Your task to perform on an android device: turn on javascript in the chrome app Image 0: 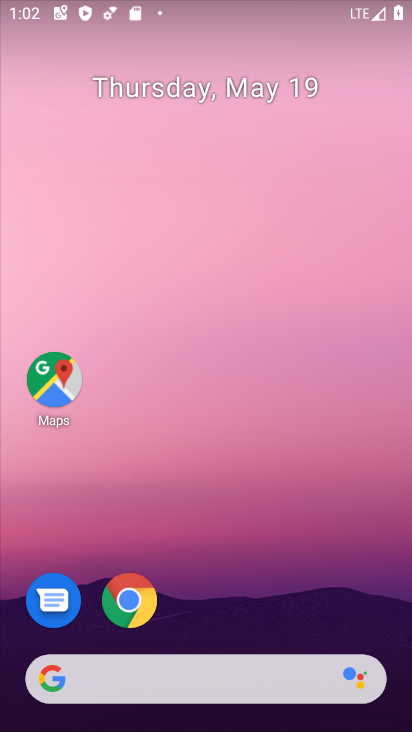
Step 0: click (121, 600)
Your task to perform on an android device: turn on javascript in the chrome app Image 1: 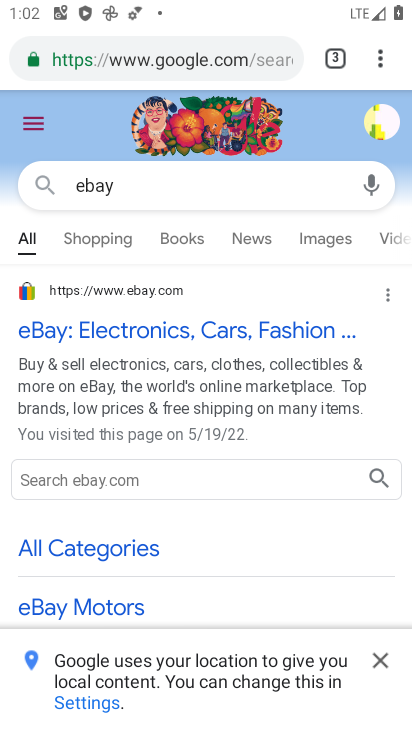
Step 1: click (378, 60)
Your task to perform on an android device: turn on javascript in the chrome app Image 2: 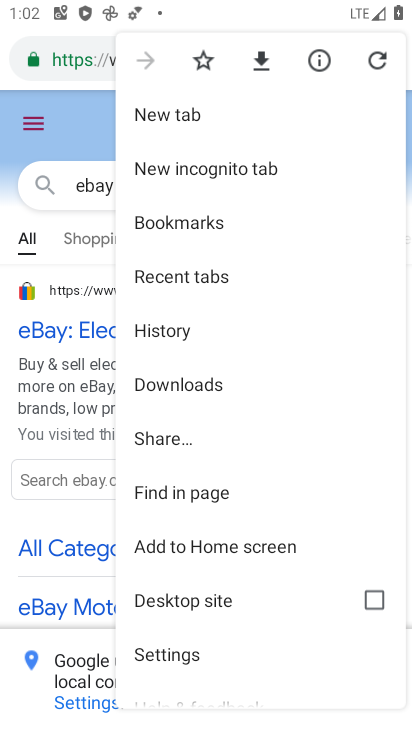
Step 2: drag from (271, 498) to (261, 163)
Your task to perform on an android device: turn on javascript in the chrome app Image 3: 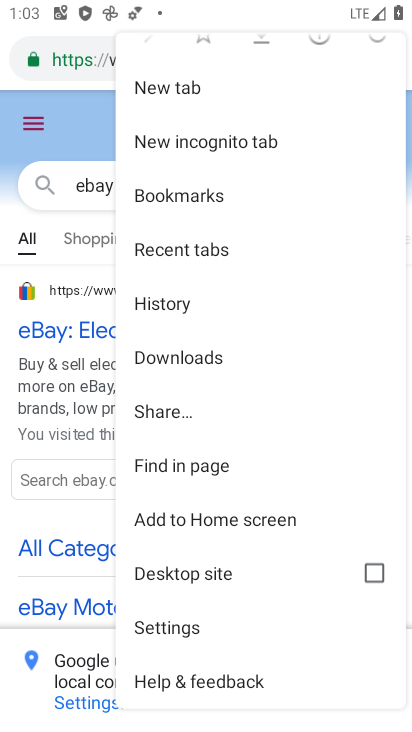
Step 3: click (168, 626)
Your task to perform on an android device: turn on javascript in the chrome app Image 4: 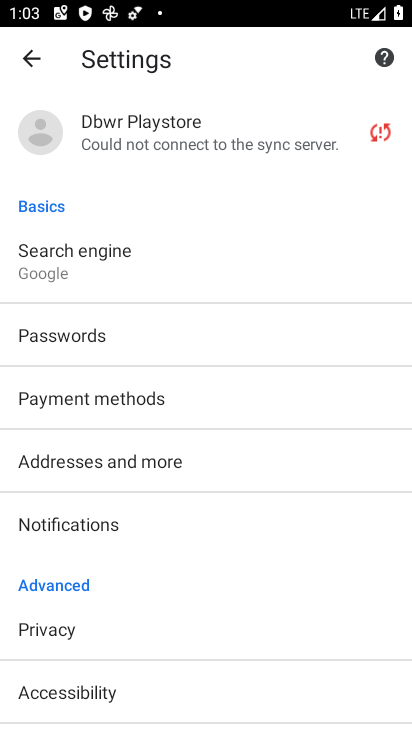
Step 4: drag from (244, 465) to (194, 36)
Your task to perform on an android device: turn on javascript in the chrome app Image 5: 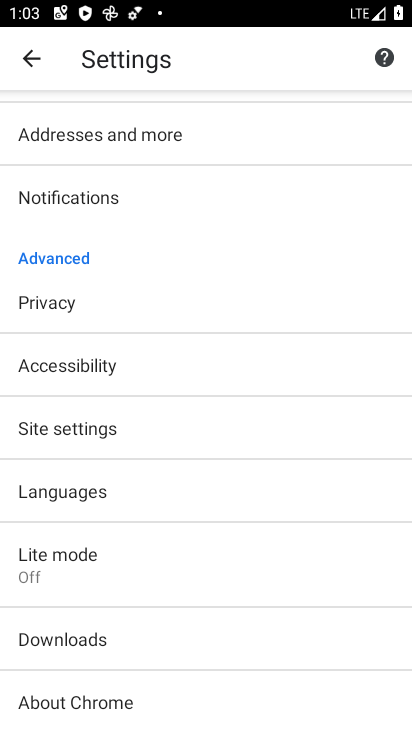
Step 5: drag from (235, 552) to (200, 199)
Your task to perform on an android device: turn on javascript in the chrome app Image 6: 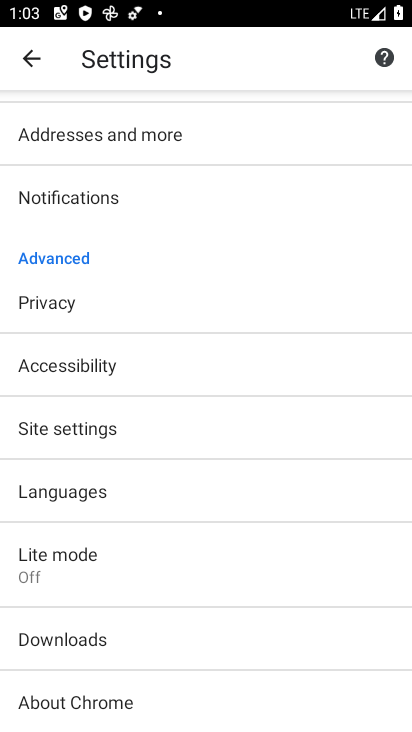
Step 6: click (79, 427)
Your task to perform on an android device: turn on javascript in the chrome app Image 7: 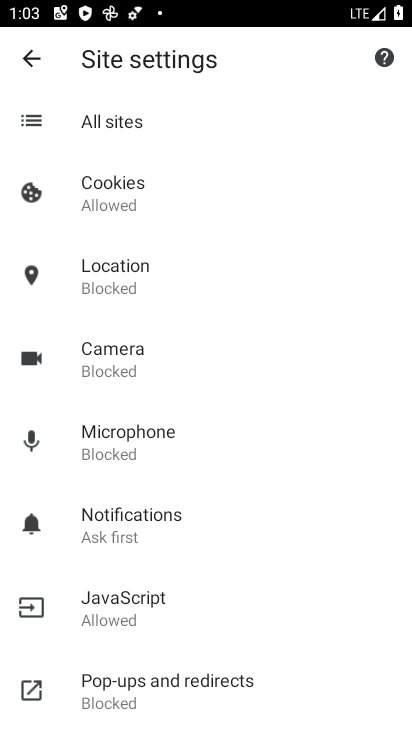
Step 7: click (118, 602)
Your task to perform on an android device: turn on javascript in the chrome app Image 8: 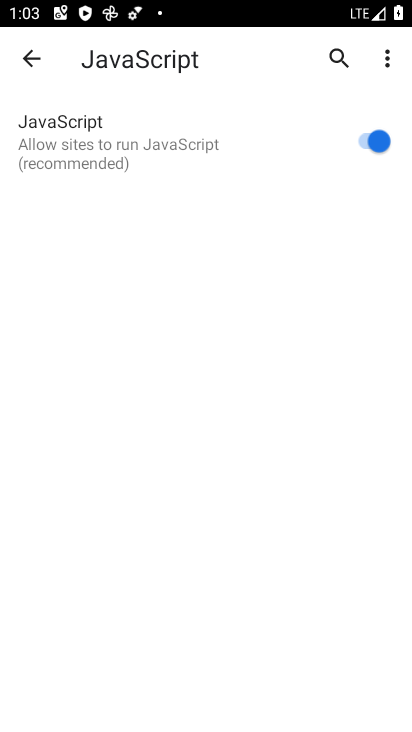
Step 8: task complete